Your task to perform on an android device: delete a single message in the gmail app Image 0: 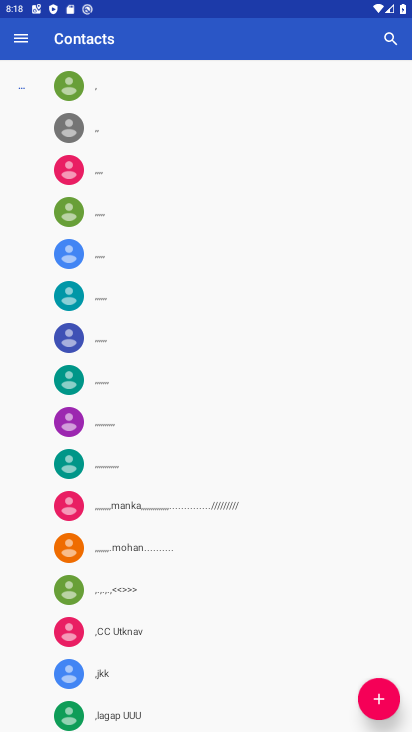
Step 0: press home button
Your task to perform on an android device: delete a single message in the gmail app Image 1: 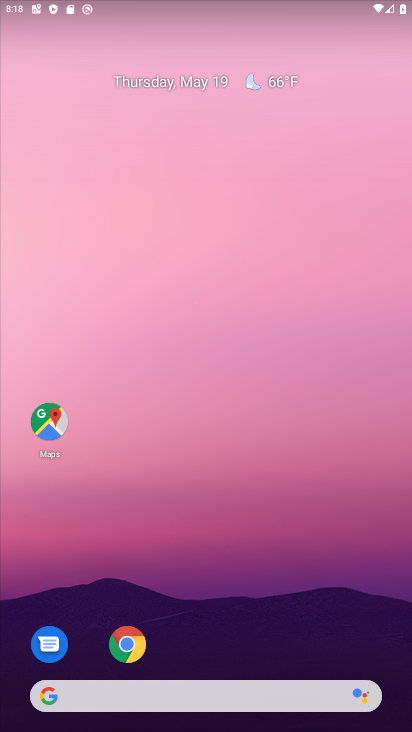
Step 1: drag from (317, 614) to (329, 185)
Your task to perform on an android device: delete a single message in the gmail app Image 2: 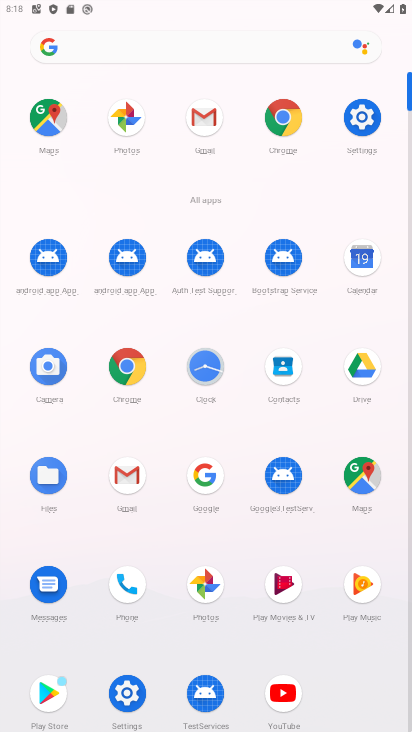
Step 2: click (137, 480)
Your task to perform on an android device: delete a single message in the gmail app Image 3: 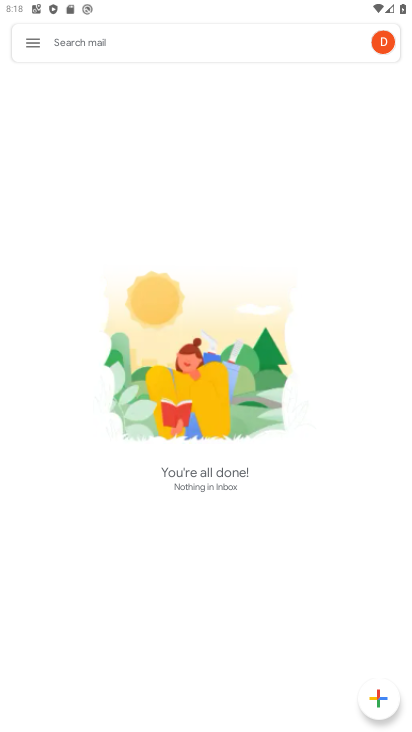
Step 3: click (32, 47)
Your task to perform on an android device: delete a single message in the gmail app Image 4: 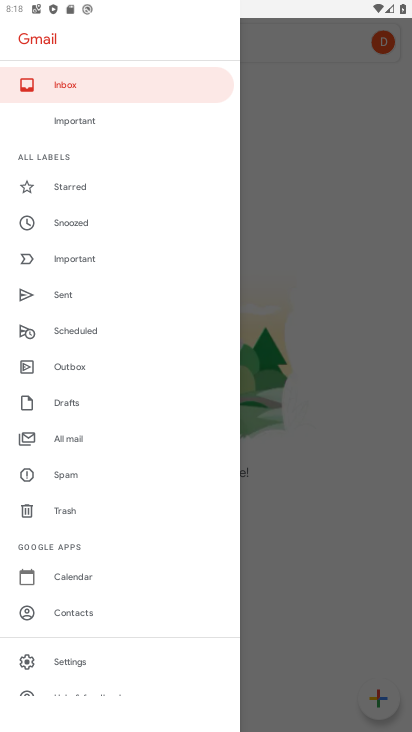
Step 4: drag from (118, 619) to (142, 344)
Your task to perform on an android device: delete a single message in the gmail app Image 5: 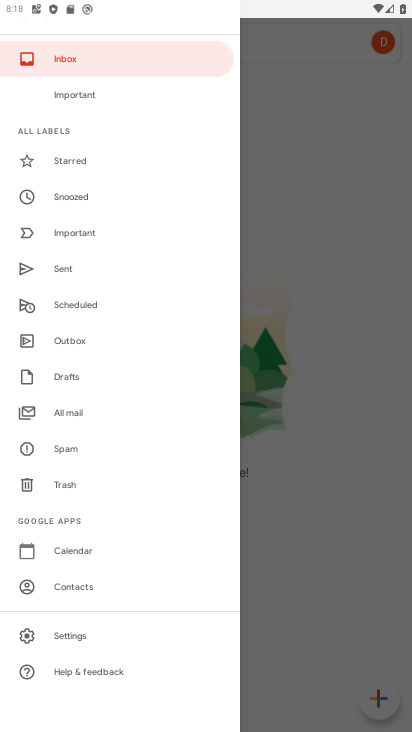
Step 5: click (77, 406)
Your task to perform on an android device: delete a single message in the gmail app Image 6: 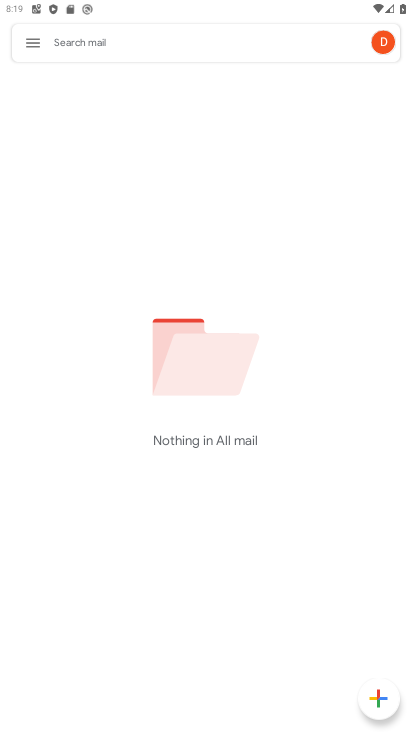
Step 6: task complete